Your task to perform on an android device: Open Yahoo.com Image 0: 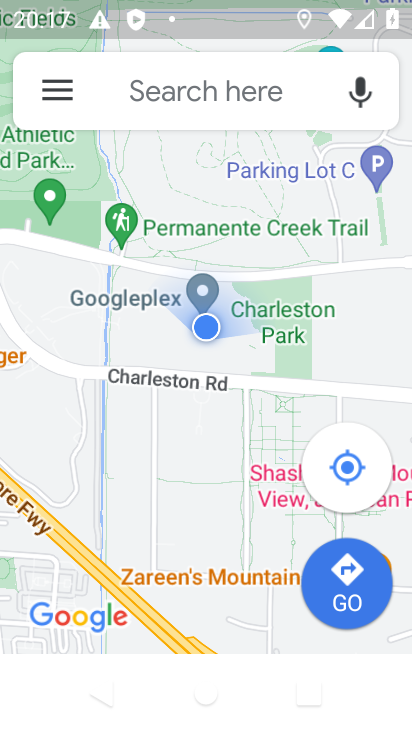
Step 0: press home button
Your task to perform on an android device: Open Yahoo.com Image 1: 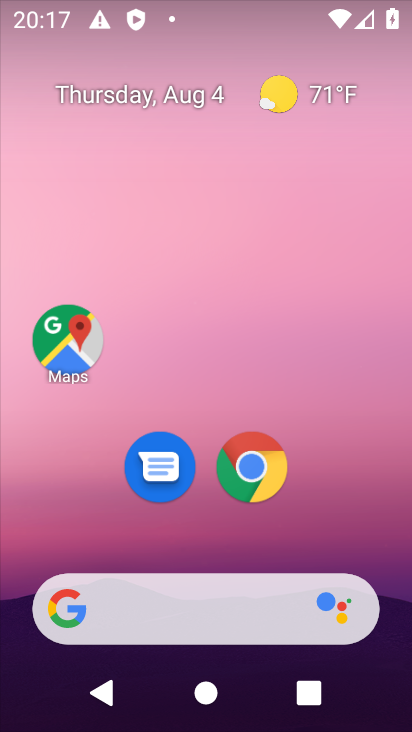
Step 1: click (253, 477)
Your task to perform on an android device: Open Yahoo.com Image 2: 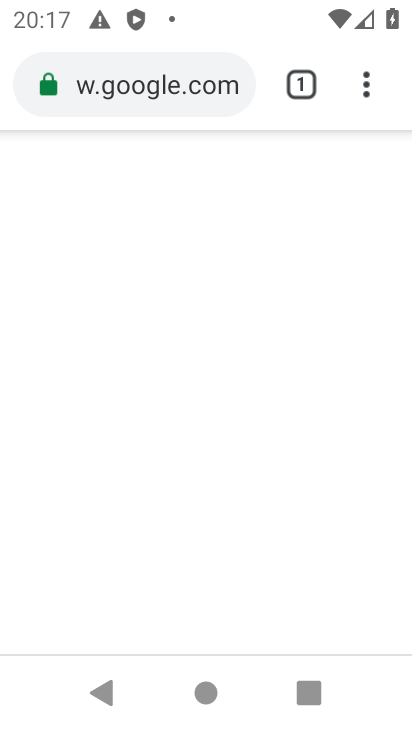
Step 2: click (160, 92)
Your task to perform on an android device: Open Yahoo.com Image 3: 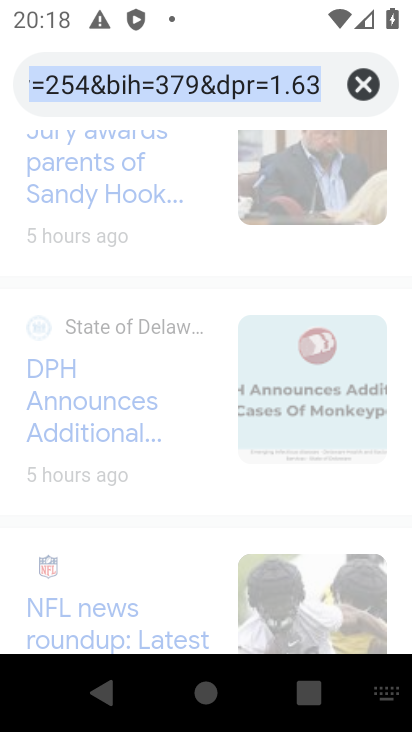
Step 3: type "Yahoo.com"
Your task to perform on an android device: Open Yahoo.com Image 4: 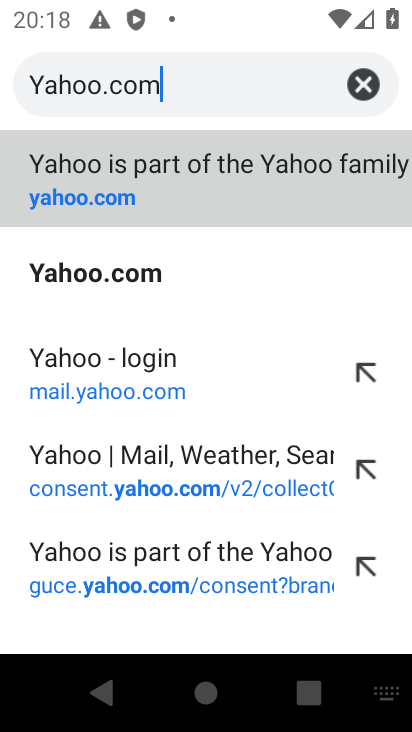
Step 4: type ""
Your task to perform on an android device: Open Yahoo.com Image 5: 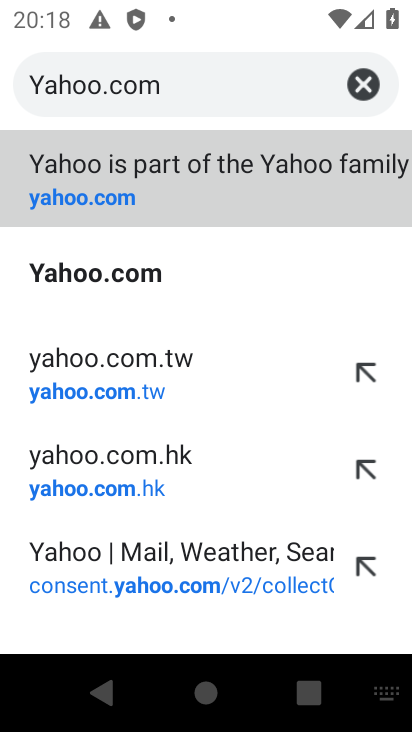
Step 5: click (119, 196)
Your task to perform on an android device: Open Yahoo.com Image 6: 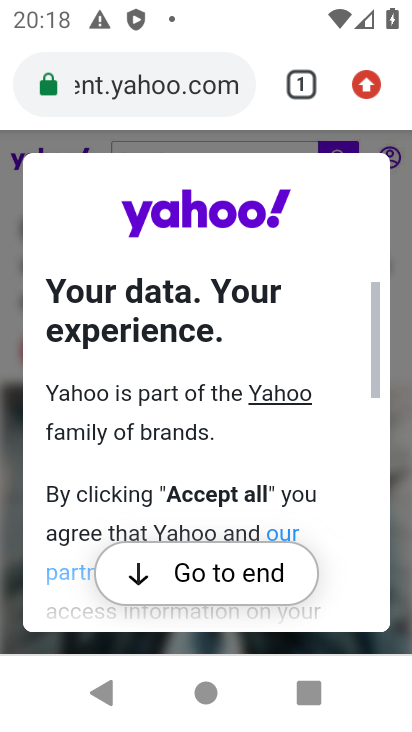
Step 6: task complete